Your task to perform on an android device: Open calendar and show me the first week of next month Image 0: 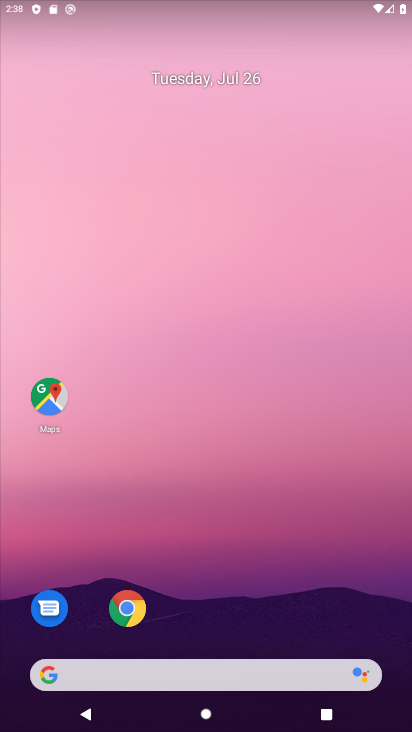
Step 0: drag from (242, 588) to (305, 3)
Your task to perform on an android device: Open calendar and show me the first week of next month Image 1: 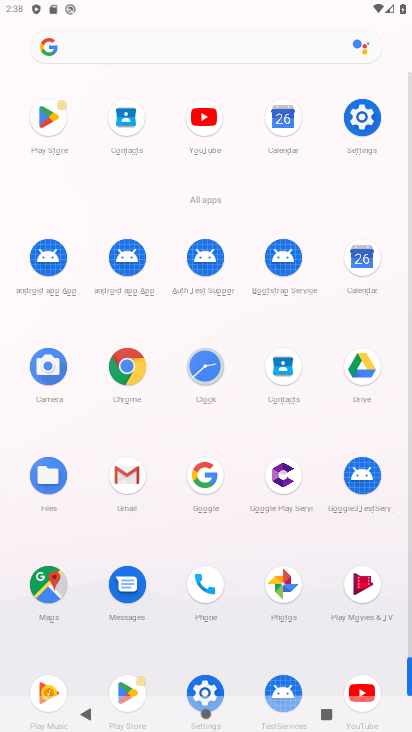
Step 1: click (362, 271)
Your task to perform on an android device: Open calendar and show me the first week of next month Image 2: 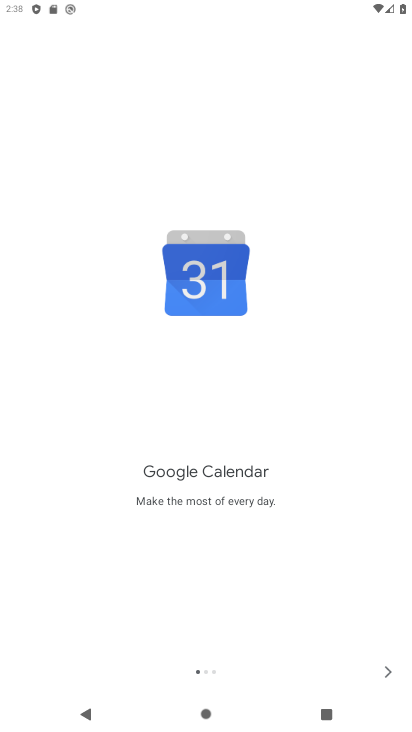
Step 2: click (384, 670)
Your task to perform on an android device: Open calendar and show me the first week of next month Image 3: 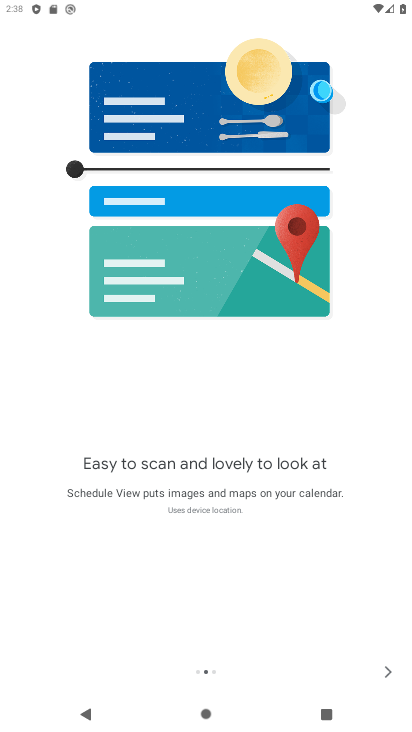
Step 3: click (384, 670)
Your task to perform on an android device: Open calendar and show me the first week of next month Image 4: 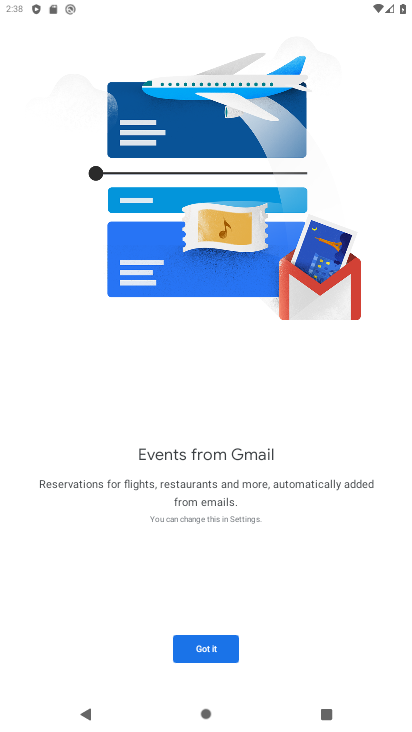
Step 4: click (219, 647)
Your task to perform on an android device: Open calendar and show me the first week of next month Image 5: 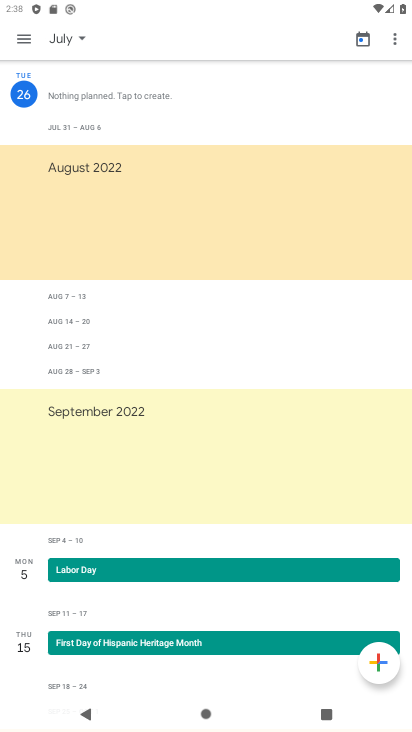
Step 5: click (19, 31)
Your task to perform on an android device: Open calendar and show me the first week of next month Image 6: 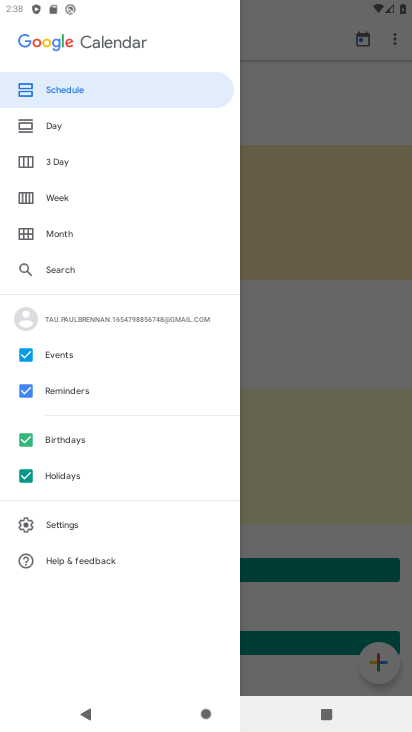
Step 6: click (70, 190)
Your task to perform on an android device: Open calendar and show me the first week of next month Image 7: 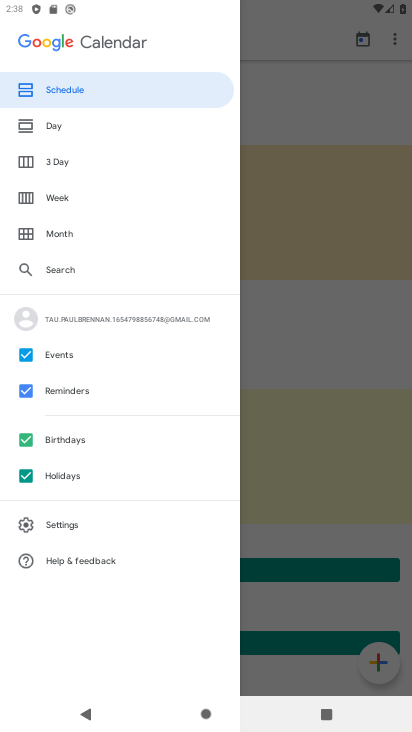
Step 7: click (69, 192)
Your task to perform on an android device: Open calendar and show me the first week of next month Image 8: 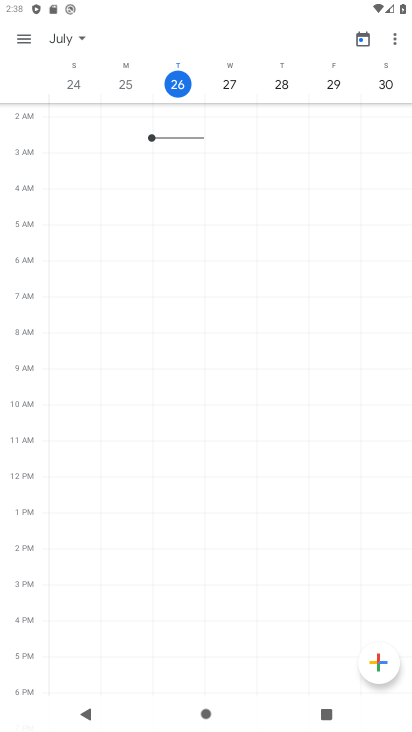
Step 8: task complete